Your task to perform on an android device: Is it going to rain today? Image 0: 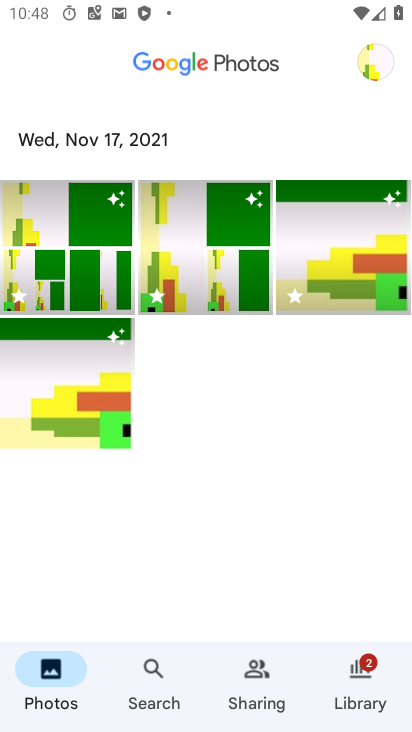
Step 0: press back button
Your task to perform on an android device: Is it going to rain today? Image 1: 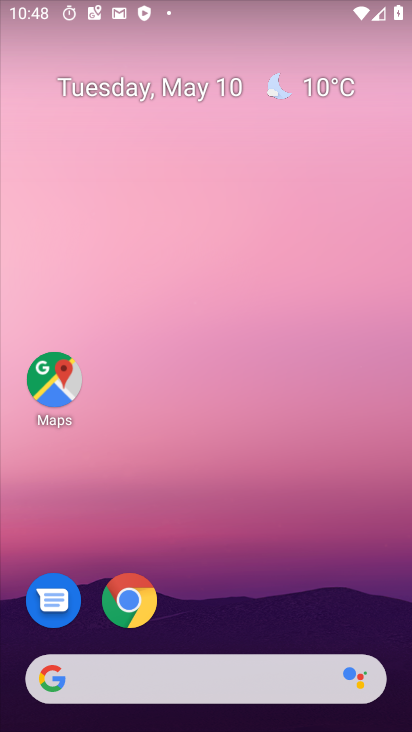
Step 1: drag from (216, 584) to (210, 30)
Your task to perform on an android device: Is it going to rain today? Image 2: 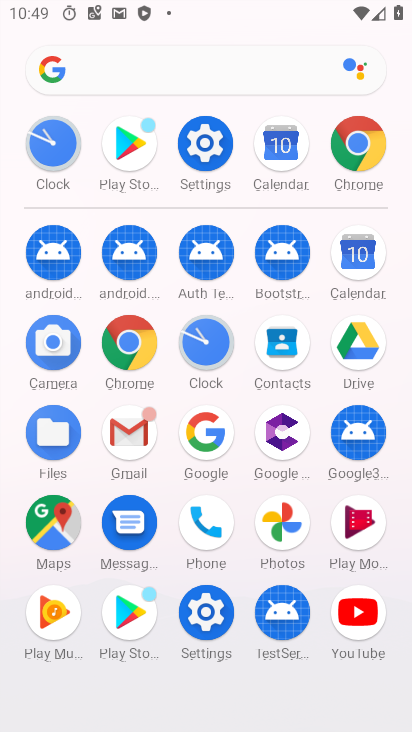
Step 2: click (124, 335)
Your task to perform on an android device: Is it going to rain today? Image 3: 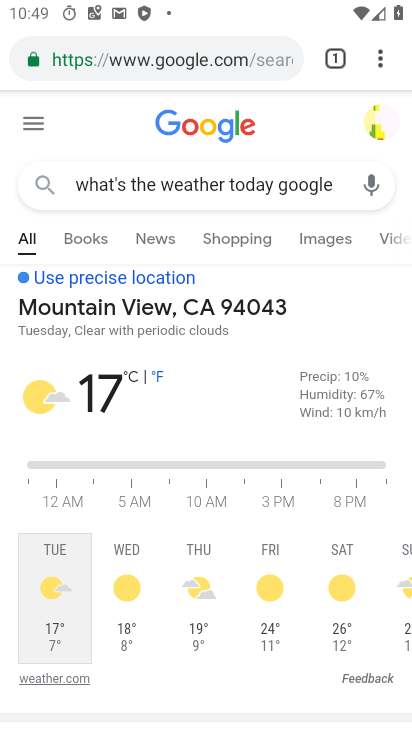
Step 3: task complete